Your task to perform on an android device: Show me the alarms in the clock app Image 0: 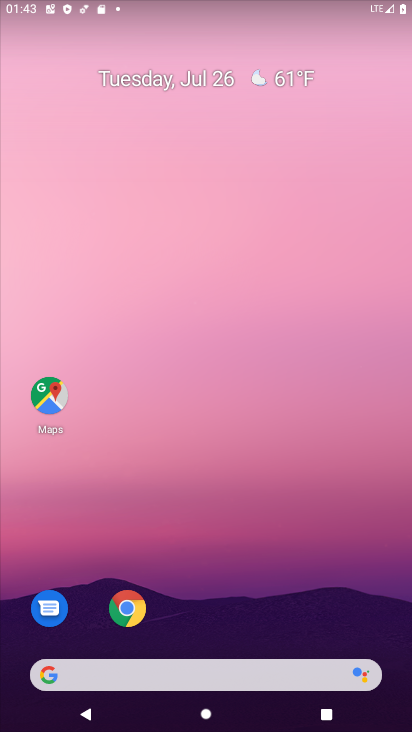
Step 0: drag from (5, 696) to (157, 286)
Your task to perform on an android device: Show me the alarms in the clock app Image 1: 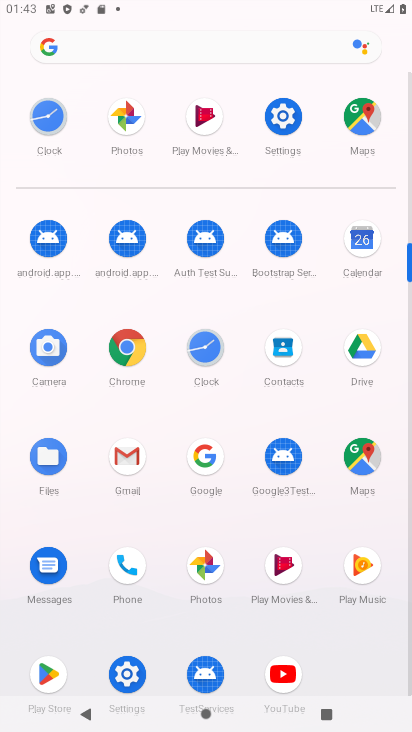
Step 1: click (197, 342)
Your task to perform on an android device: Show me the alarms in the clock app Image 2: 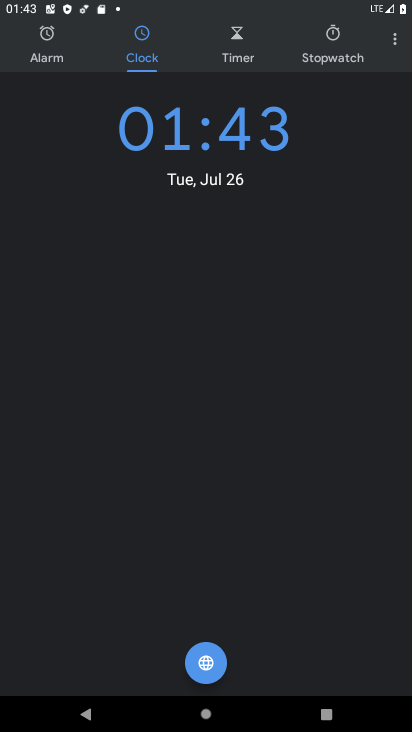
Step 2: click (47, 61)
Your task to perform on an android device: Show me the alarms in the clock app Image 3: 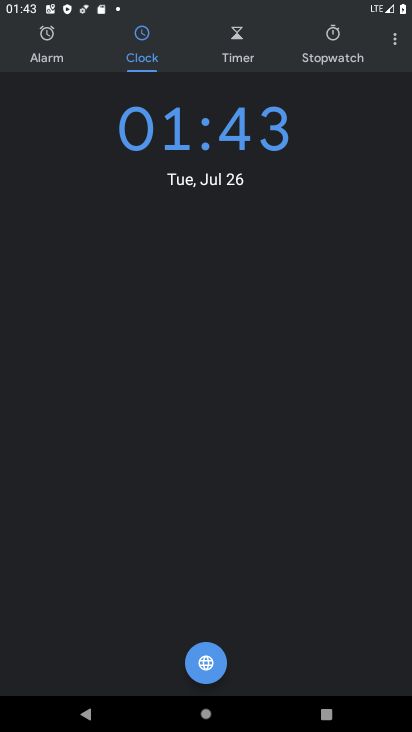
Step 3: click (59, 39)
Your task to perform on an android device: Show me the alarms in the clock app Image 4: 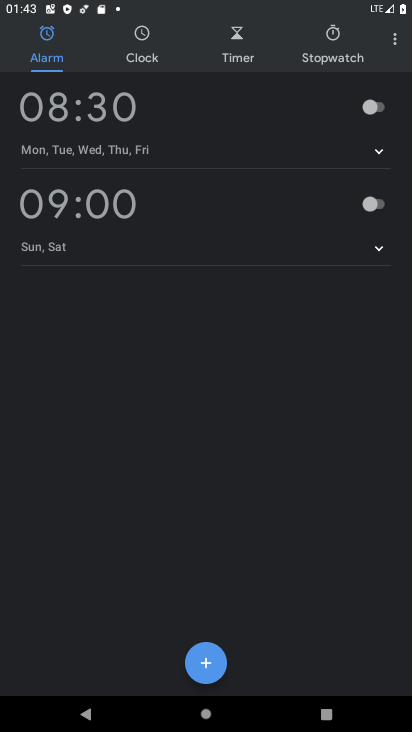
Step 4: drag from (218, 499) to (345, 669)
Your task to perform on an android device: Show me the alarms in the clock app Image 5: 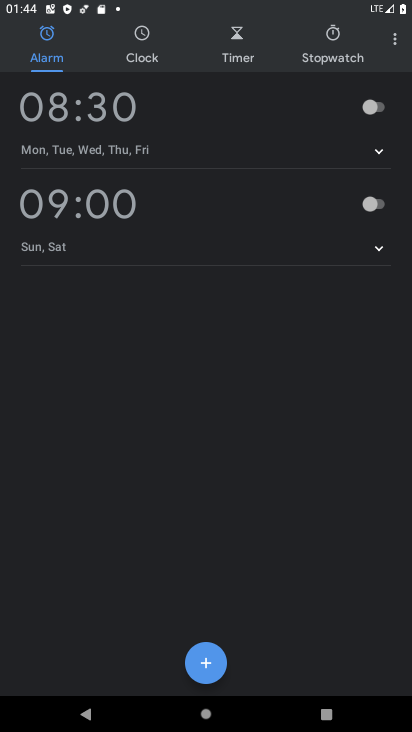
Step 5: click (214, 667)
Your task to perform on an android device: Show me the alarms in the clock app Image 6: 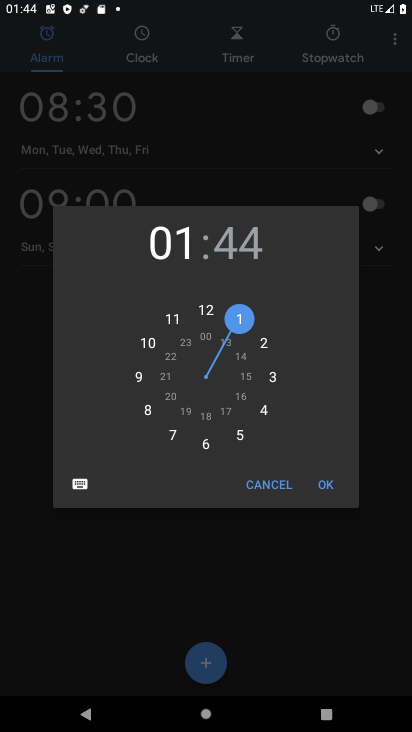
Step 6: click (262, 409)
Your task to perform on an android device: Show me the alarms in the clock app Image 7: 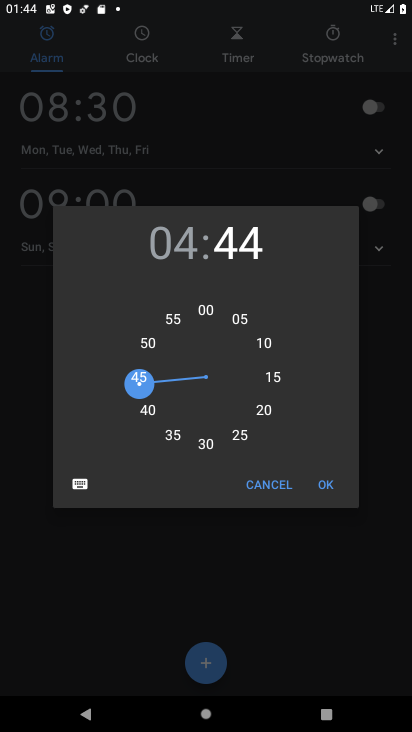
Step 7: click (154, 349)
Your task to perform on an android device: Show me the alarms in the clock app Image 8: 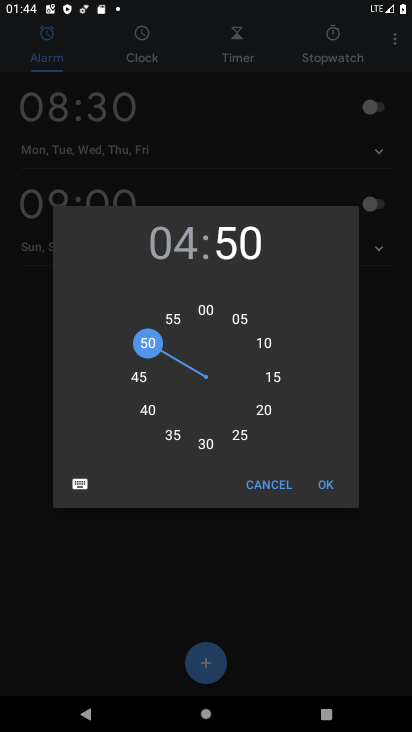
Step 8: click (323, 485)
Your task to perform on an android device: Show me the alarms in the clock app Image 9: 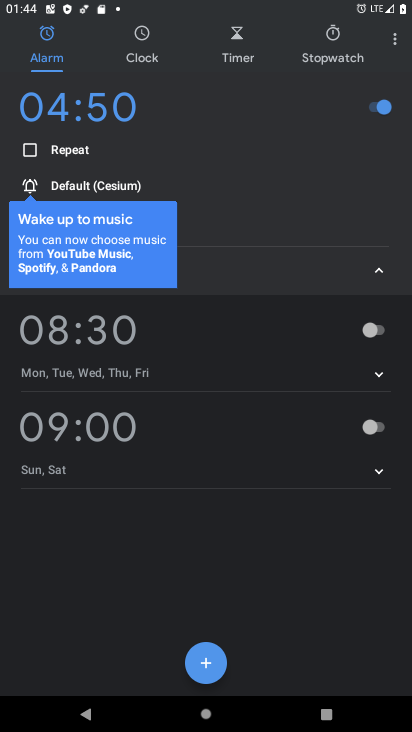
Step 9: task complete